Your task to perform on an android device: toggle notification dots Image 0: 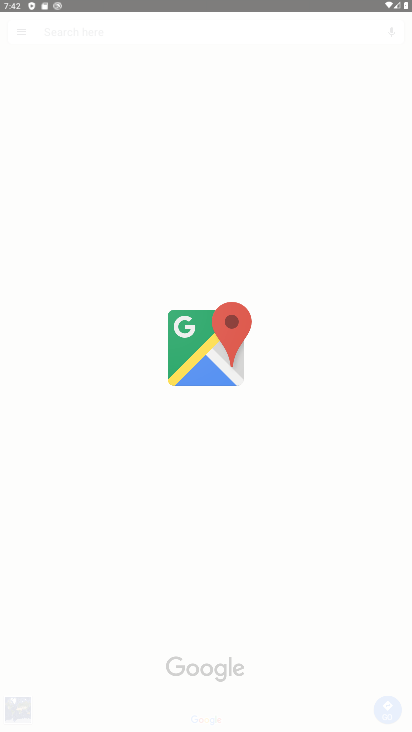
Step 0: drag from (179, 611) to (187, 76)
Your task to perform on an android device: toggle notification dots Image 1: 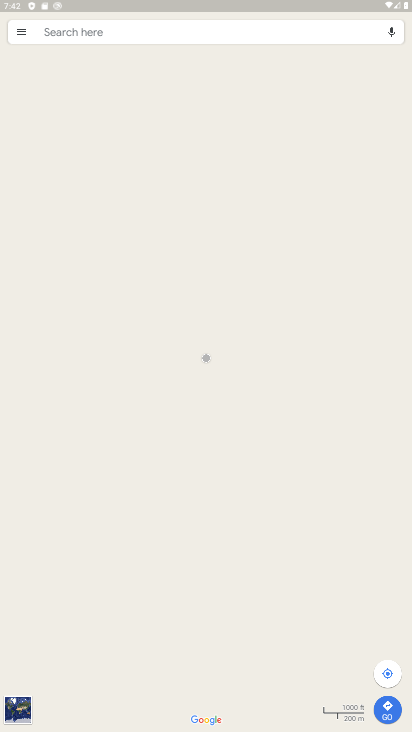
Step 1: press home button
Your task to perform on an android device: toggle notification dots Image 2: 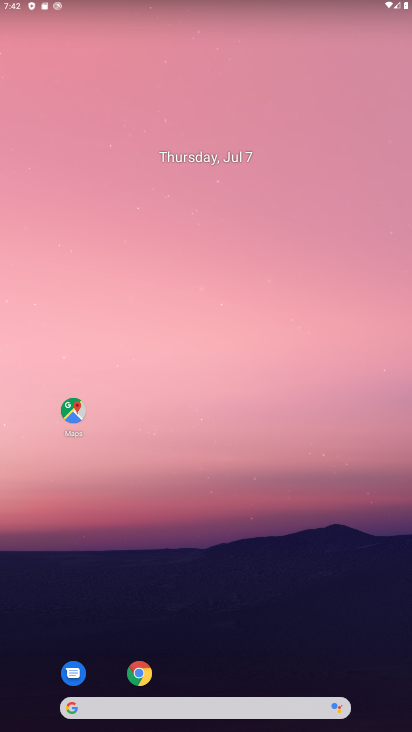
Step 2: drag from (194, 663) to (211, 87)
Your task to perform on an android device: toggle notification dots Image 3: 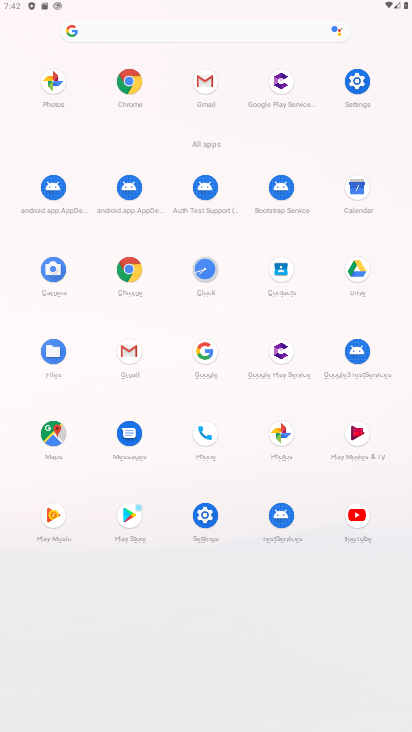
Step 3: click (356, 91)
Your task to perform on an android device: toggle notification dots Image 4: 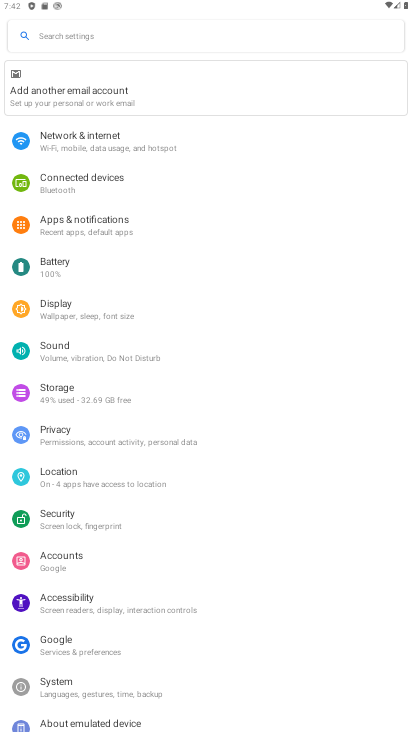
Step 4: click (118, 185)
Your task to perform on an android device: toggle notification dots Image 5: 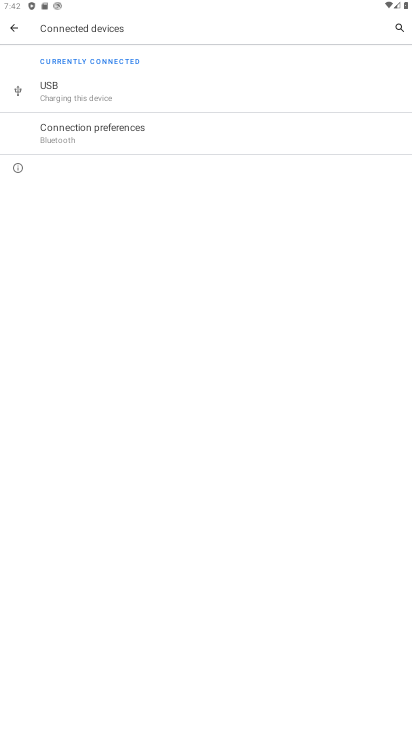
Step 5: click (15, 28)
Your task to perform on an android device: toggle notification dots Image 6: 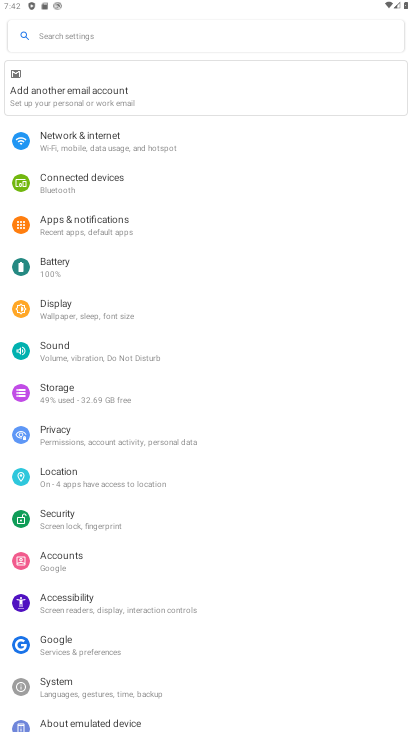
Step 6: click (80, 228)
Your task to perform on an android device: toggle notification dots Image 7: 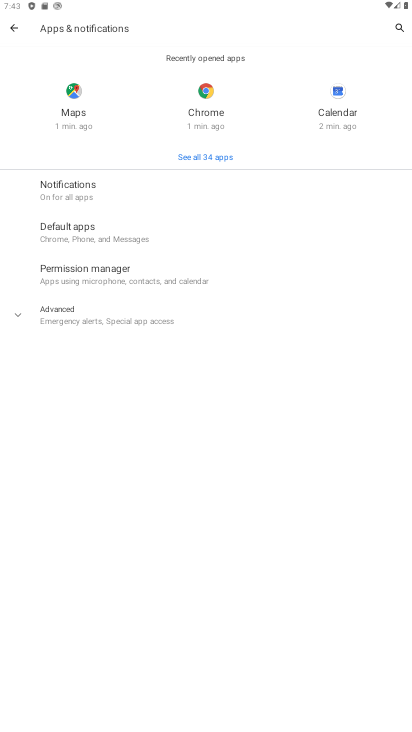
Step 7: click (75, 187)
Your task to perform on an android device: toggle notification dots Image 8: 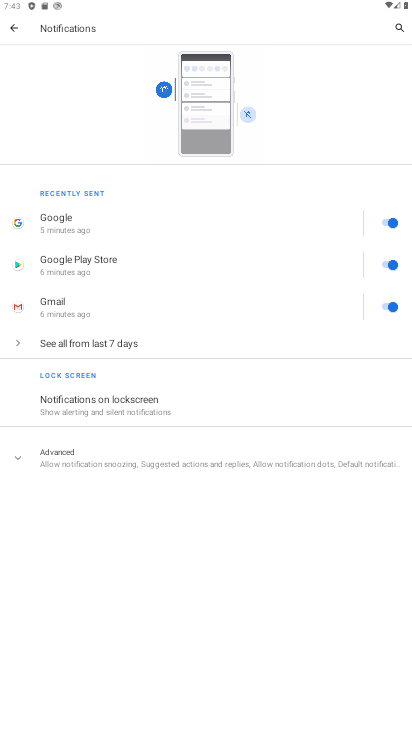
Step 8: click (71, 449)
Your task to perform on an android device: toggle notification dots Image 9: 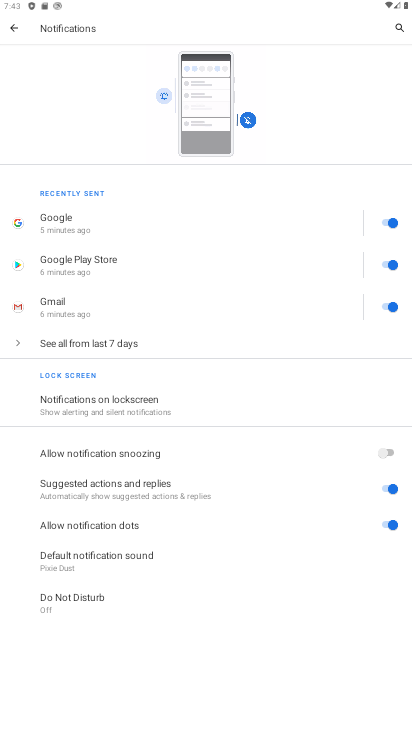
Step 9: click (384, 526)
Your task to perform on an android device: toggle notification dots Image 10: 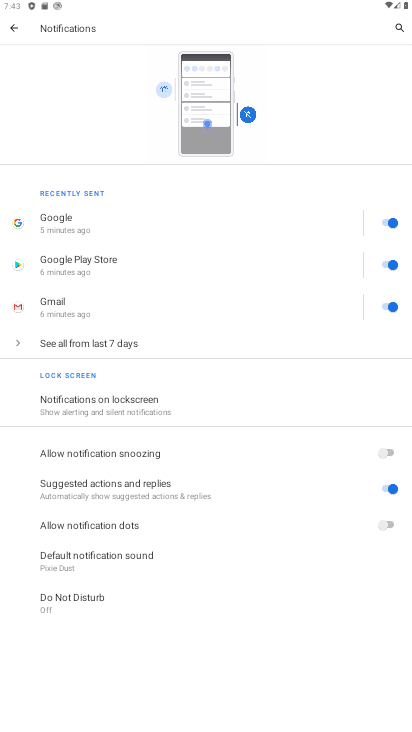
Step 10: task complete